Your task to perform on an android device: Open Google Maps Image 0: 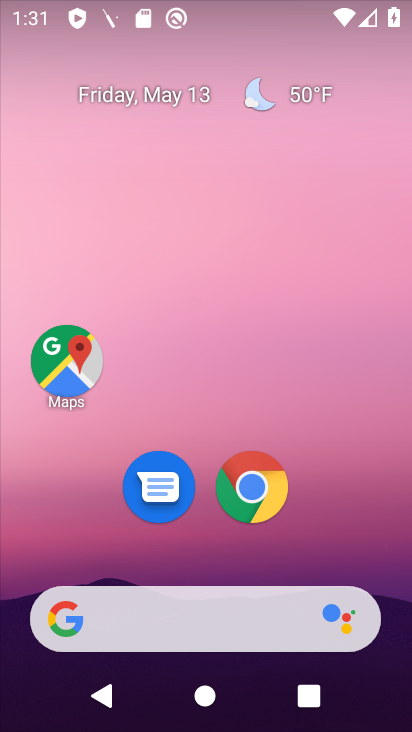
Step 0: click (84, 369)
Your task to perform on an android device: Open Google Maps Image 1: 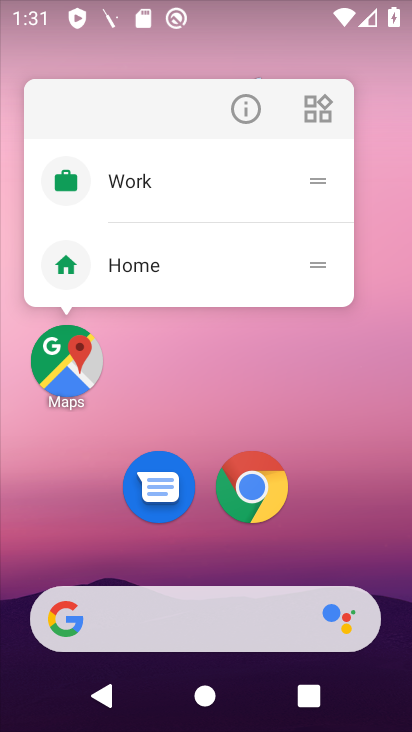
Step 1: click (84, 369)
Your task to perform on an android device: Open Google Maps Image 2: 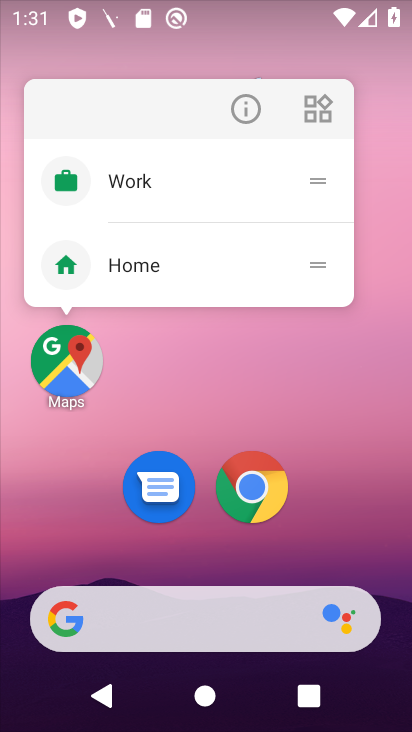
Step 2: click (62, 388)
Your task to perform on an android device: Open Google Maps Image 3: 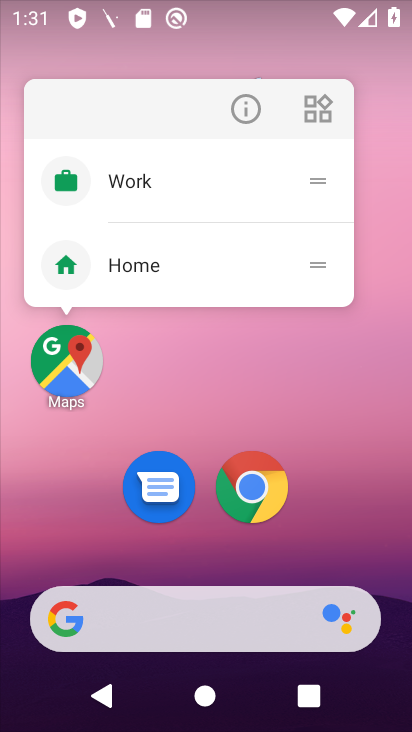
Step 3: click (67, 376)
Your task to perform on an android device: Open Google Maps Image 4: 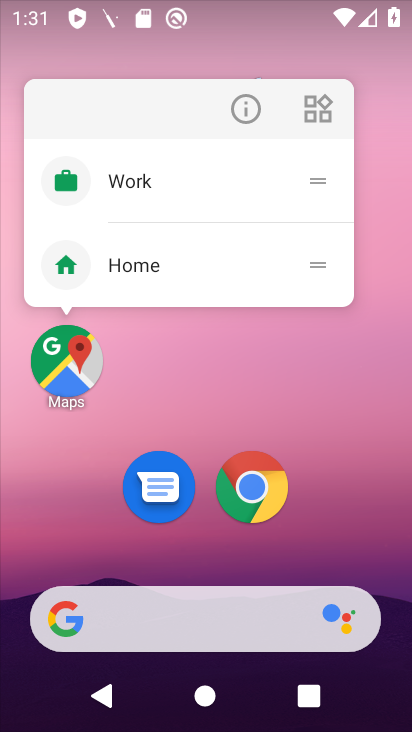
Step 4: click (78, 361)
Your task to perform on an android device: Open Google Maps Image 5: 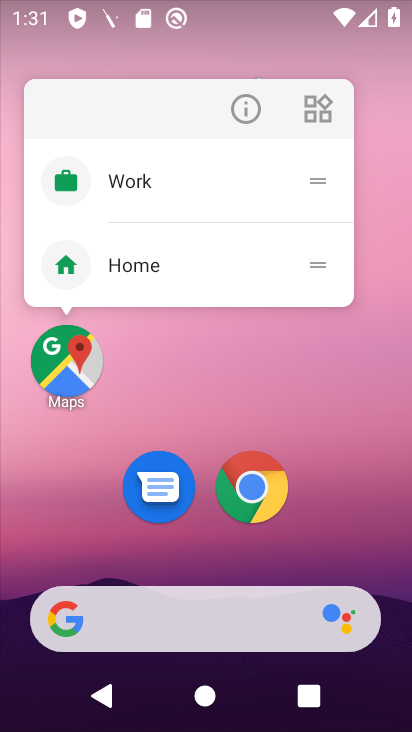
Step 5: click (79, 372)
Your task to perform on an android device: Open Google Maps Image 6: 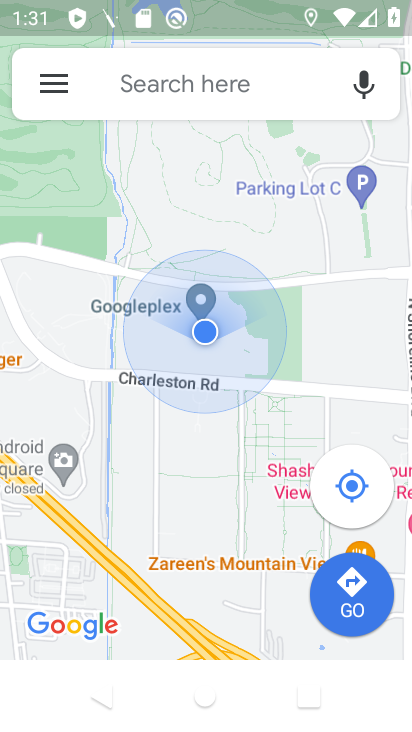
Step 6: task complete